Your task to perform on an android device: Show me popular videos on Youtube Image 0: 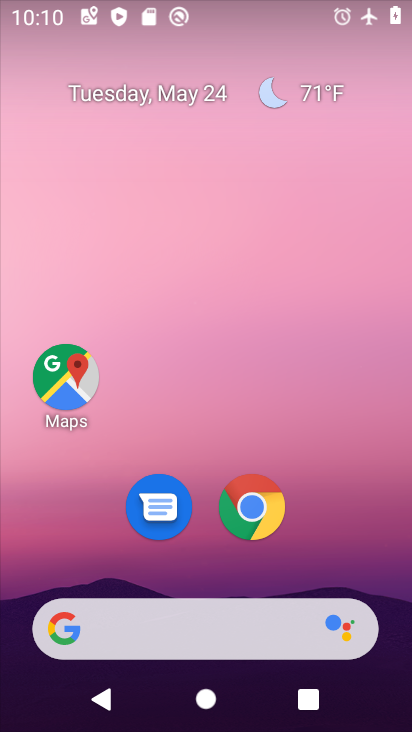
Step 0: click (193, 181)
Your task to perform on an android device: Show me popular videos on Youtube Image 1: 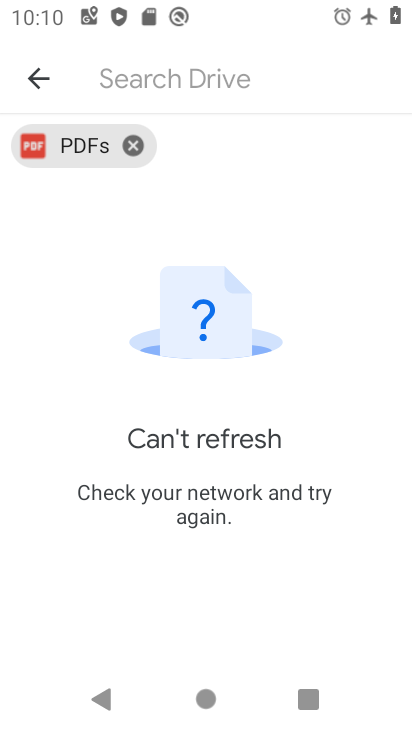
Step 1: press home button
Your task to perform on an android device: Show me popular videos on Youtube Image 2: 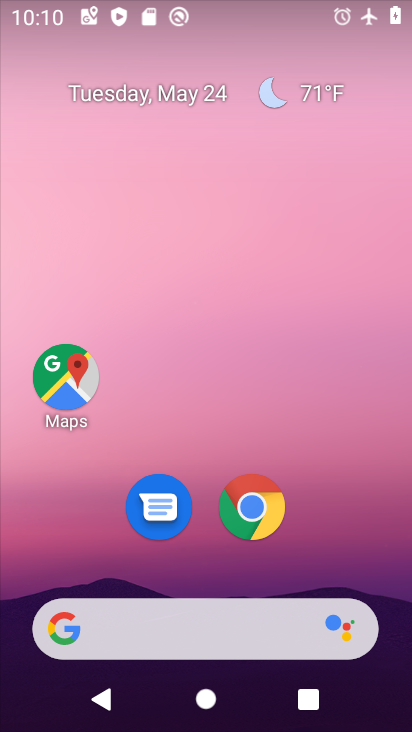
Step 2: drag from (237, 726) to (204, 196)
Your task to perform on an android device: Show me popular videos on Youtube Image 3: 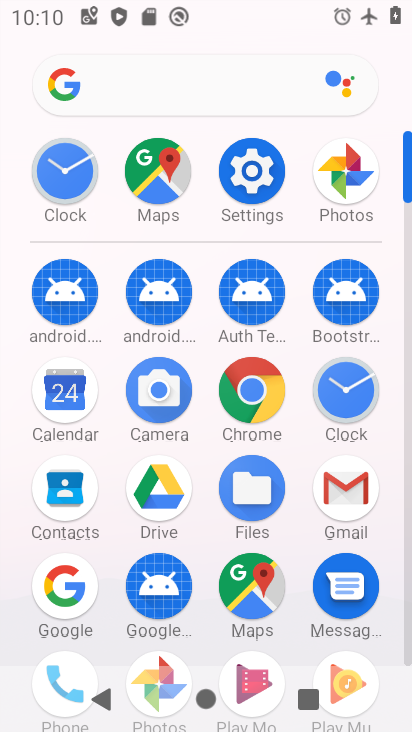
Step 3: drag from (302, 532) to (288, 326)
Your task to perform on an android device: Show me popular videos on Youtube Image 4: 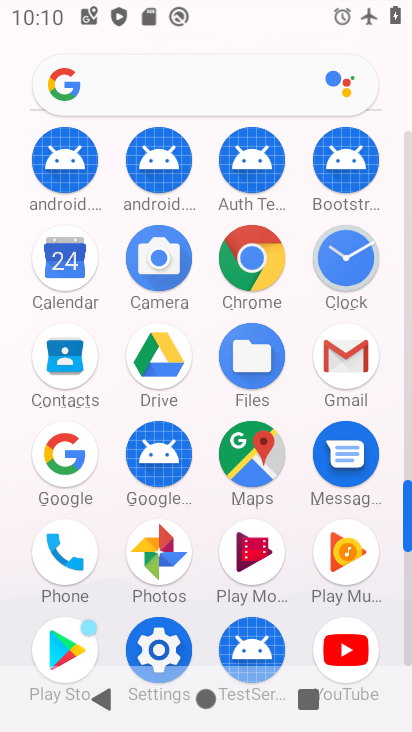
Step 4: click (336, 654)
Your task to perform on an android device: Show me popular videos on Youtube Image 5: 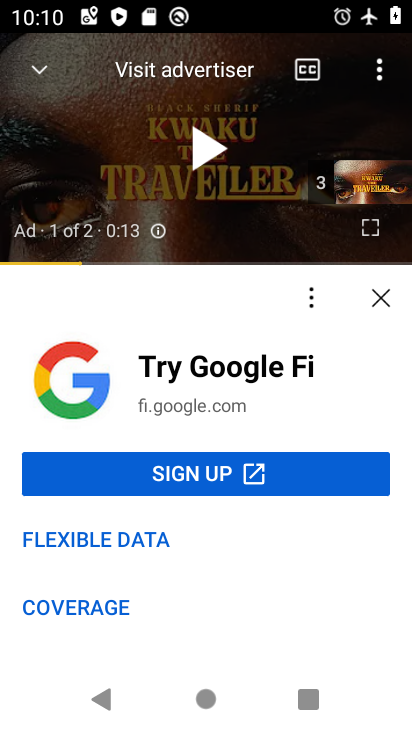
Step 5: click (376, 295)
Your task to perform on an android device: Show me popular videos on Youtube Image 6: 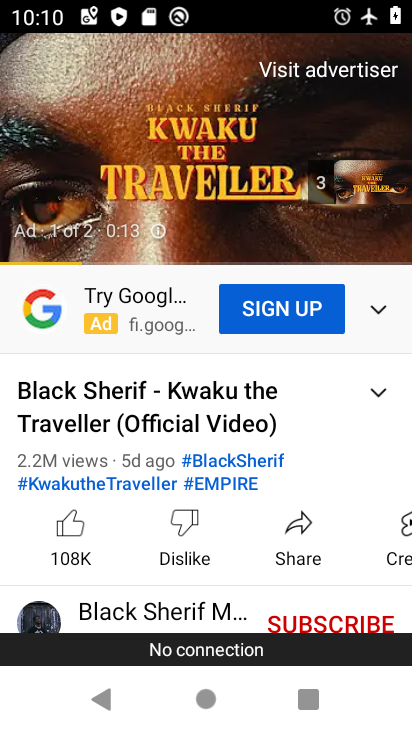
Step 6: drag from (58, 73) to (100, 485)
Your task to perform on an android device: Show me popular videos on Youtube Image 7: 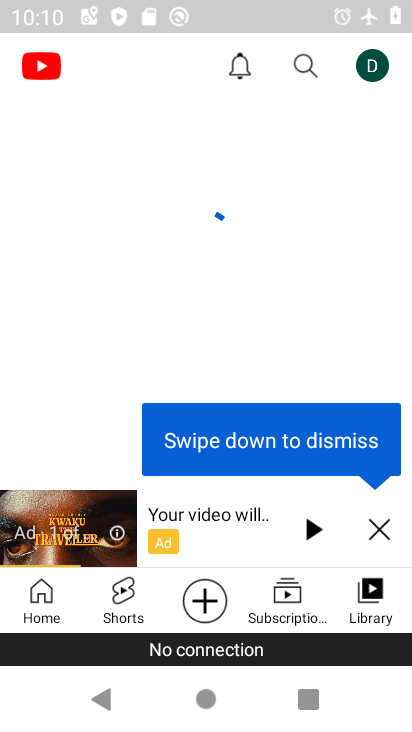
Step 7: click (381, 521)
Your task to perform on an android device: Show me popular videos on Youtube Image 8: 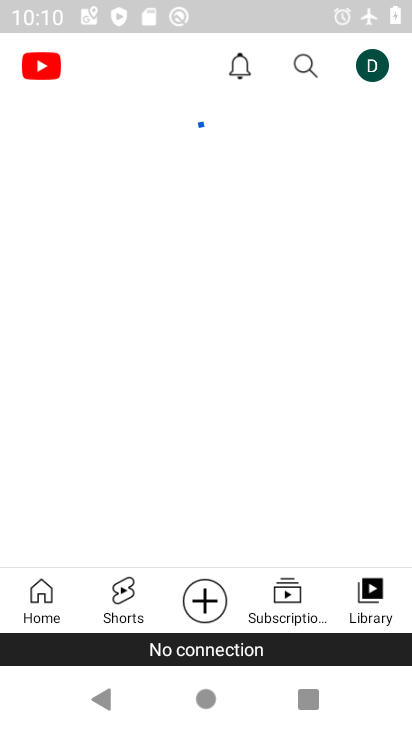
Step 8: task complete